Your task to perform on an android device: Open the calendar app, open the side menu, and click the "Day" option Image 0: 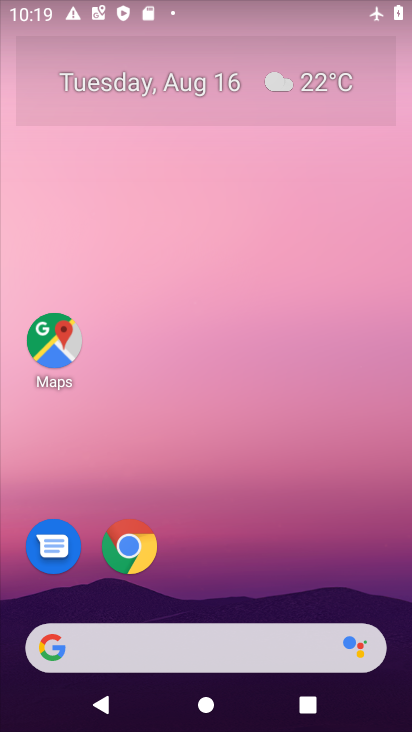
Step 0: drag from (231, 548) to (289, 2)
Your task to perform on an android device: Open the calendar app, open the side menu, and click the "Day" option Image 1: 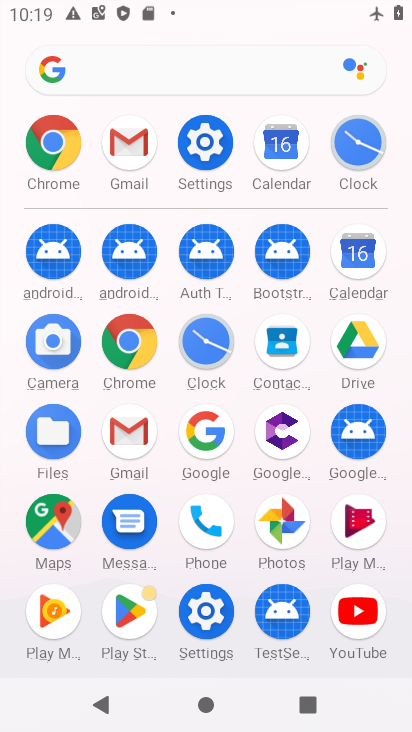
Step 1: click (281, 143)
Your task to perform on an android device: Open the calendar app, open the side menu, and click the "Day" option Image 2: 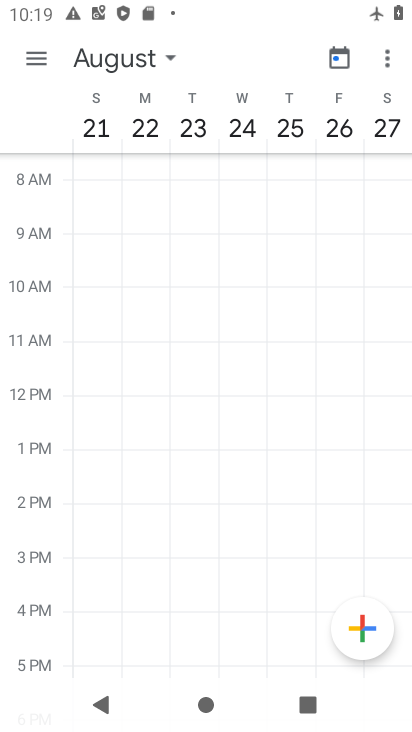
Step 2: click (39, 56)
Your task to perform on an android device: Open the calendar app, open the side menu, and click the "Day" option Image 3: 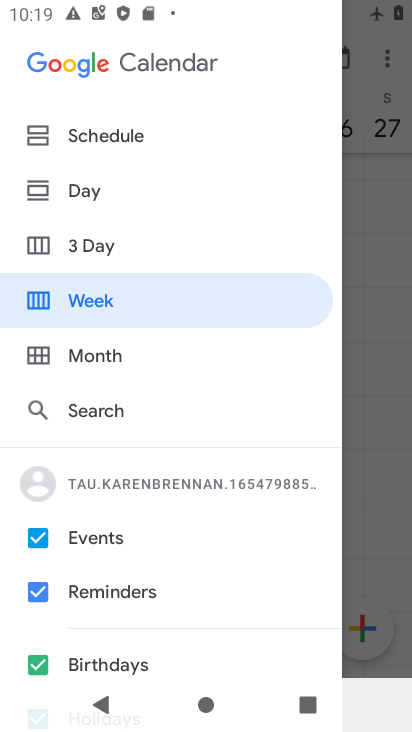
Step 3: click (36, 184)
Your task to perform on an android device: Open the calendar app, open the side menu, and click the "Day" option Image 4: 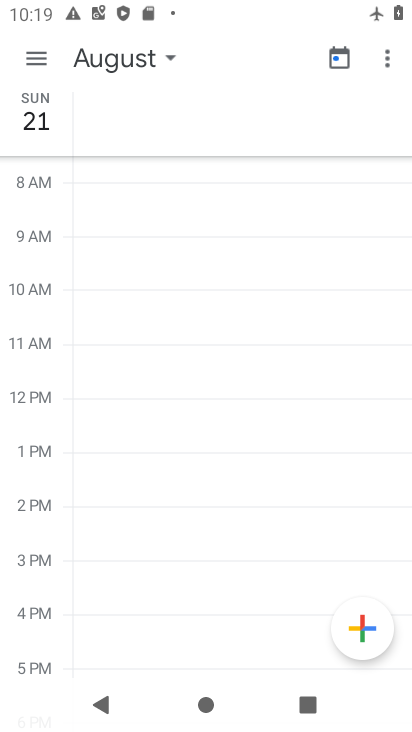
Step 4: task complete